Your task to perform on an android device: See recent photos Image 0: 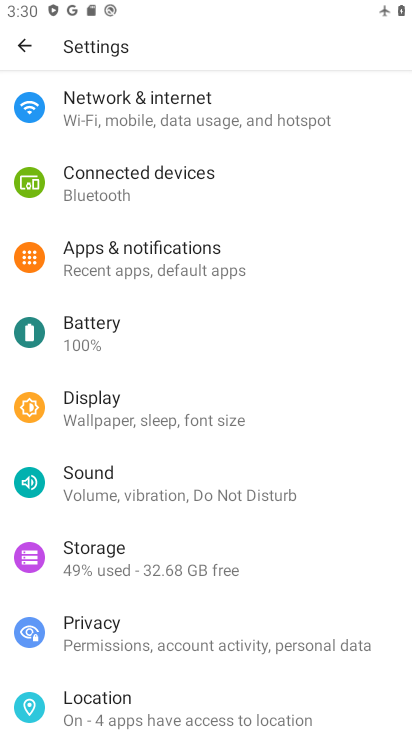
Step 0: press back button
Your task to perform on an android device: See recent photos Image 1: 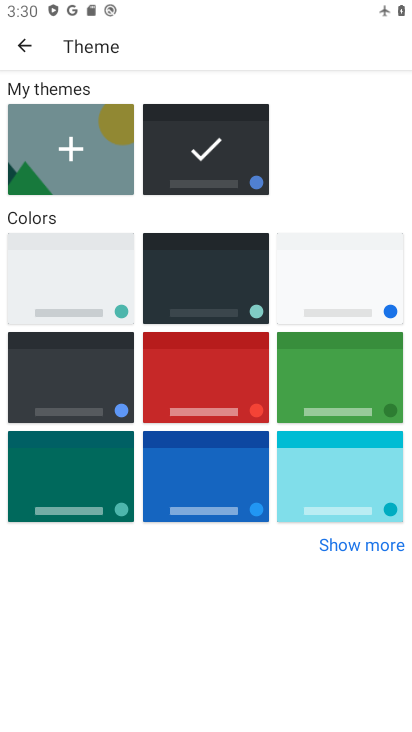
Step 1: click (22, 44)
Your task to perform on an android device: See recent photos Image 2: 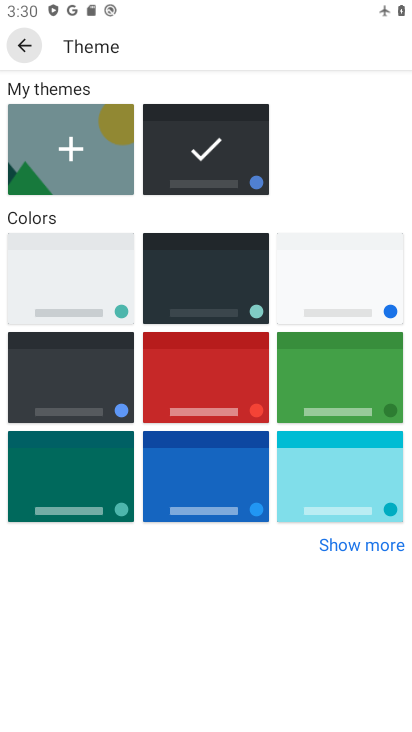
Step 2: click (22, 44)
Your task to perform on an android device: See recent photos Image 3: 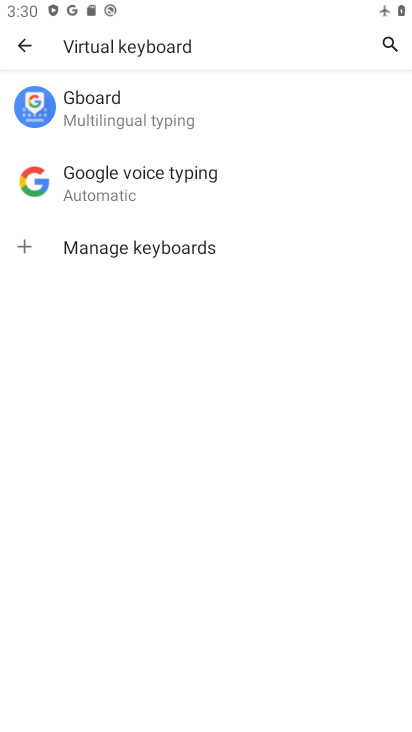
Step 3: click (22, 47)
Your task to perform on an android device: See recent photos Image 4: 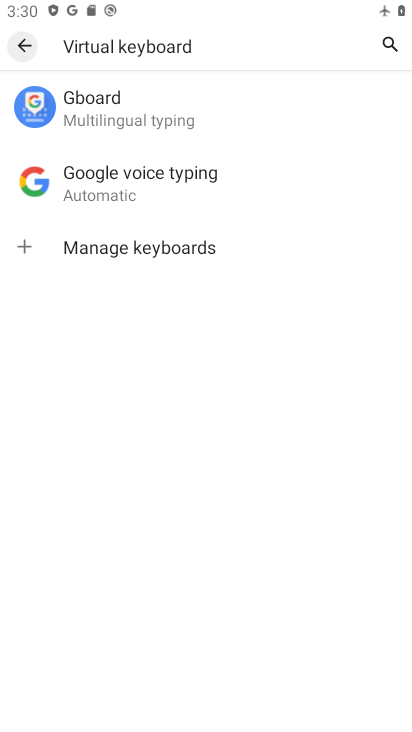
Step 4: click (23, 46)
Your task to perform on an android device: See recent photos Image 5: 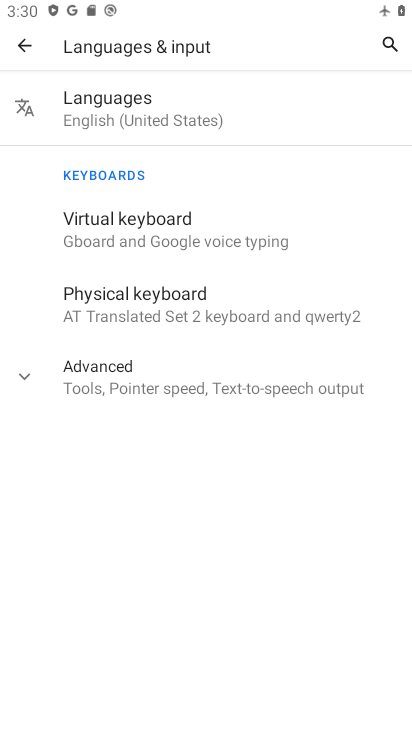
Step 5: click (10, 55)
Your task to perform on an android device: See recent photos Image 6: 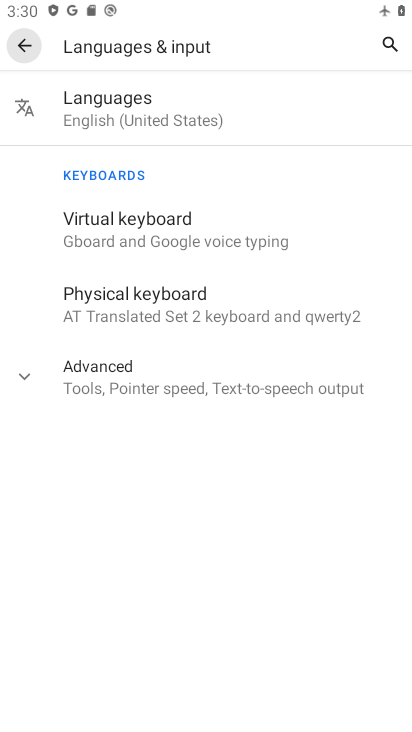
Step 6: click (17, 50)
Your task to perform on an android device: See recent photos Image 7: 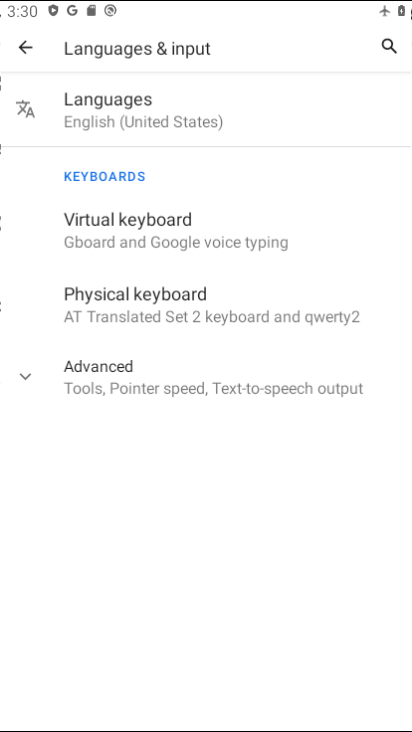
Step 7: click (19, 49)
Your task to perform on an android device: See recent photos Image 8: 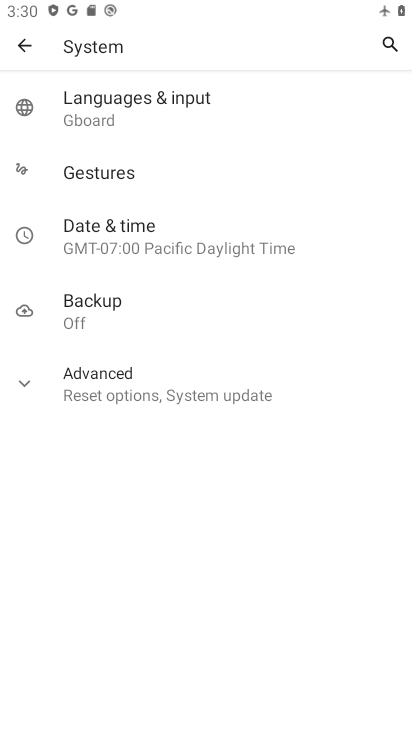
Step 8: click (19, 49)
Your task to perform on an android device: See recent photos Image 9: 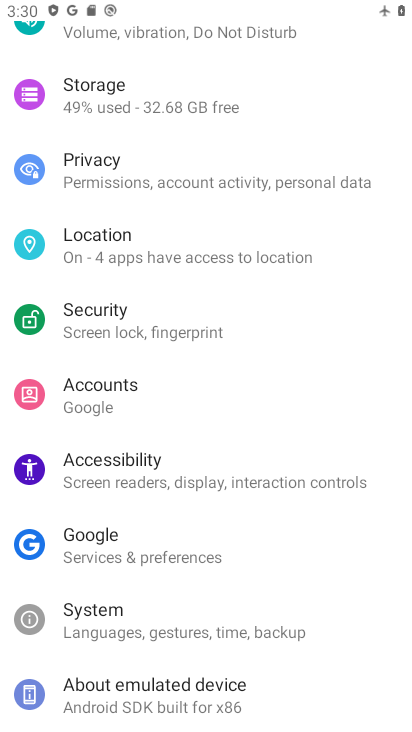
Step 9: drag from (111, 210) to (164, 412)
Your task to perform on an android device: See recent photos Image 10: 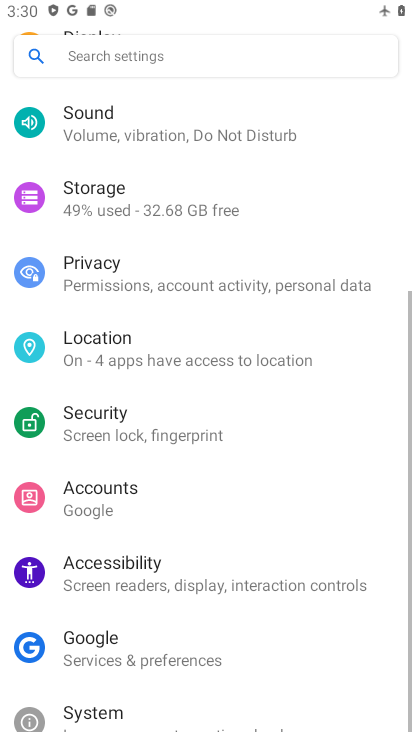
Step 10: drag from (116, 177) to (189, 411)
Your task to perform on an android device: See recent photos Image 11: 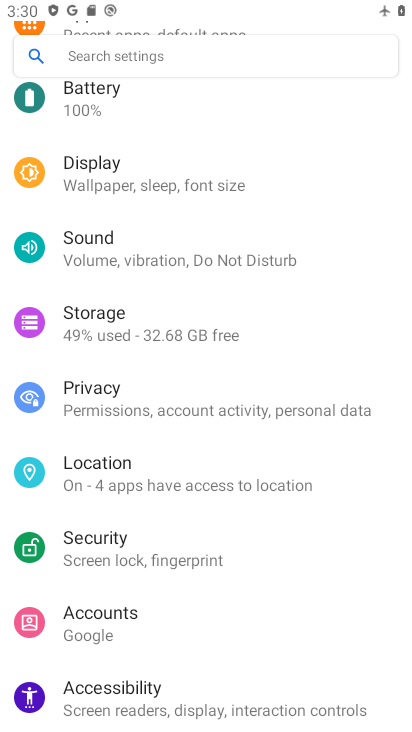
Step 11: press back button
Your task to perform on an android device: See recent photos Image 12: 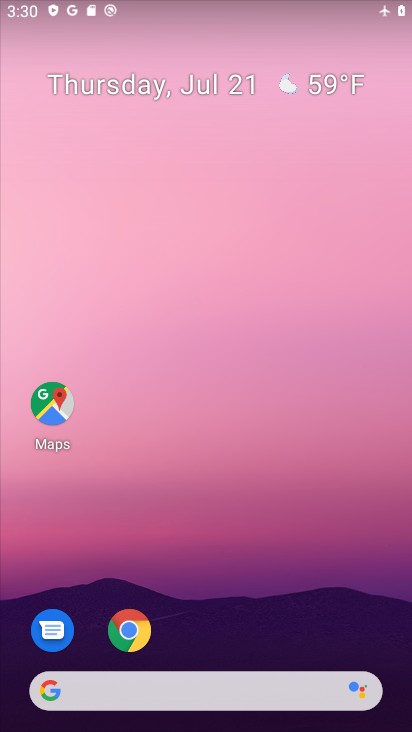
Step 12: drag from (195, 374) to (176, 64)
Your task to perform on an android device: See recent photos Image 13: 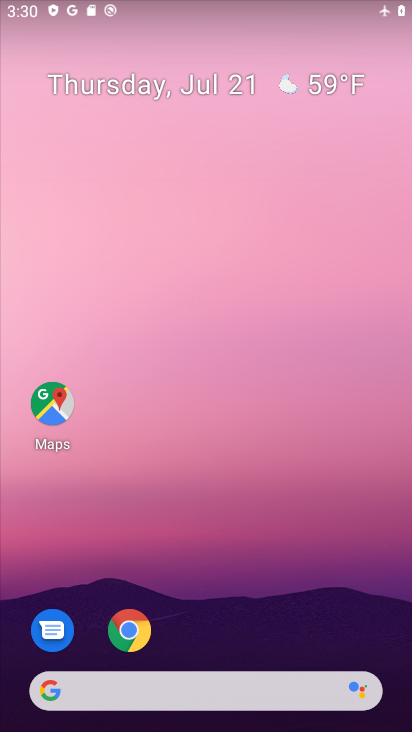
Step 13: drag from (176, 476) to (160, 78)
Your task to perform on an android device: See recent photos Image 14: 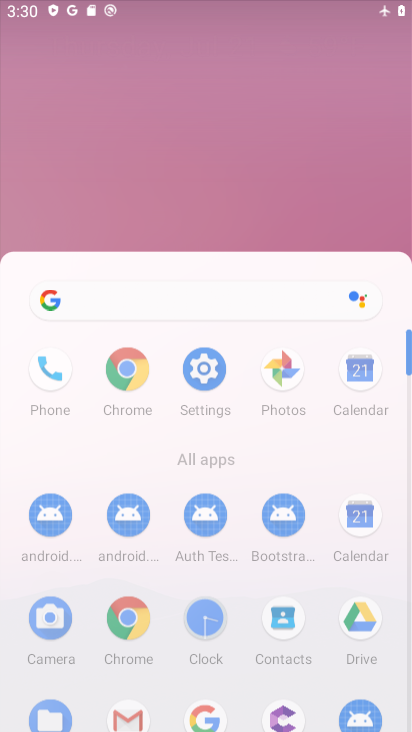
Step 14: drag from (185, 257) to (185, 168)
Your task to perform on an android device: See recent photos Image 15: 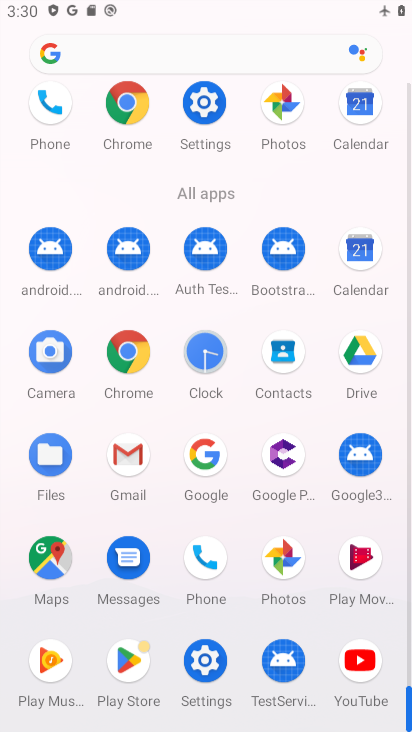
Step 15: drag from (197, 493) to (199, 149)
Your task to perform on an android device: See recent photos Image 16: 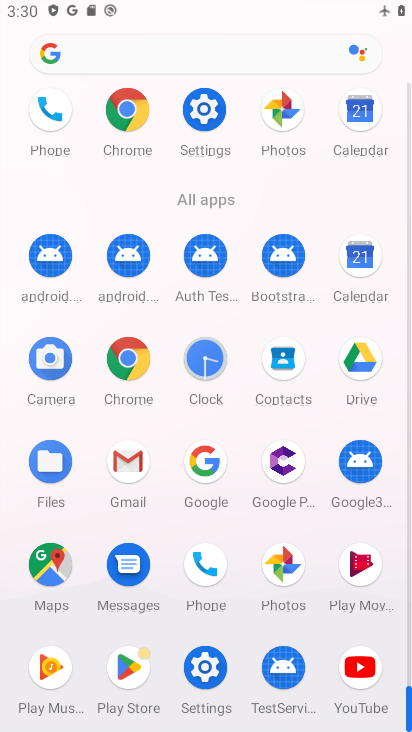
Step 16: click (274, 553)
Your task to perform on an android device: See recent photos Image 17: 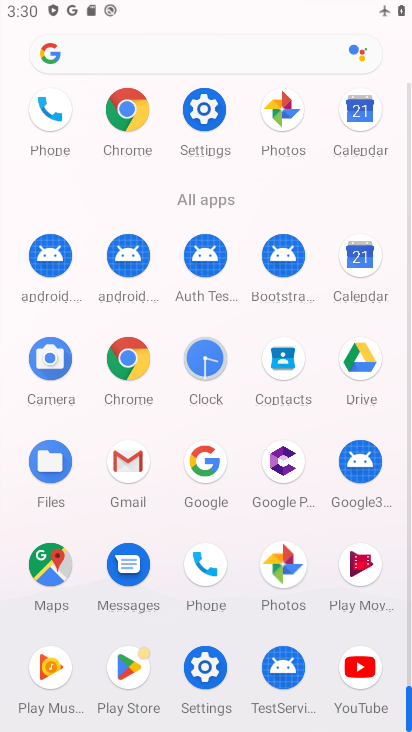
Step 17: click (279, 553)
Your task to perform on an android device: See recent photos Image 18: 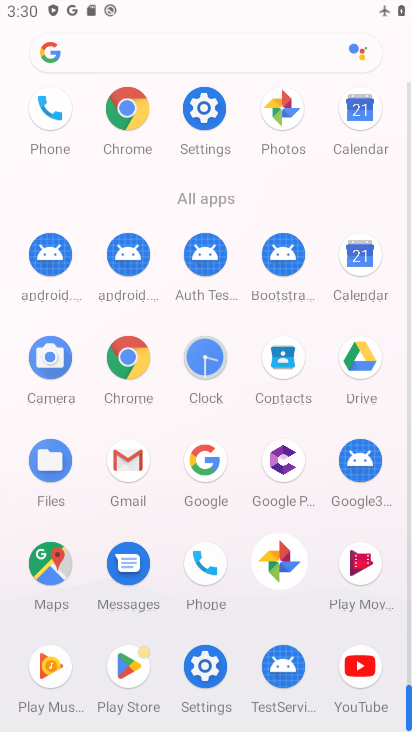
Step 18: click (281, 553)
Your task to perform on an android device: See recent photos Image 19: 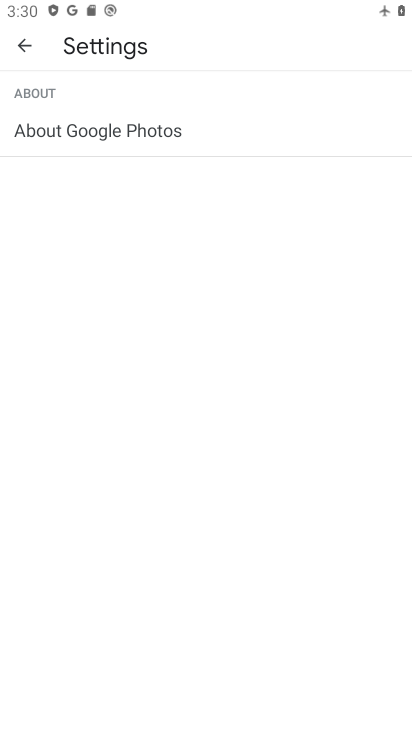
Step 19: task complete